Your task to perform on an android device: Is it going to rain tomorrow? Image 0: 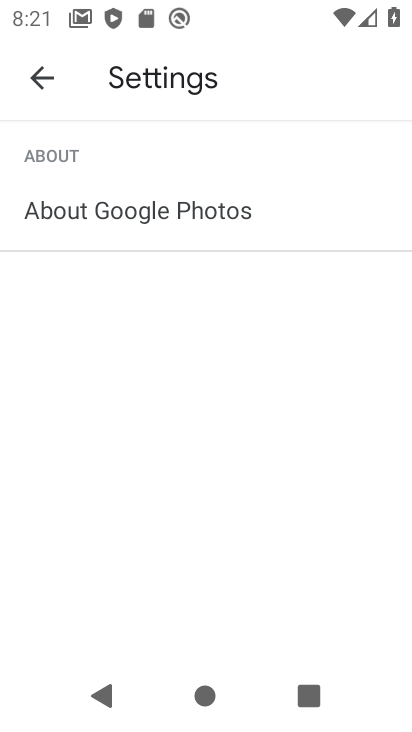
Step 0: drag from (312, 574) to (338, 418)
Your task to perform on an android device: Is it going to rain tomorrow? Image 1: 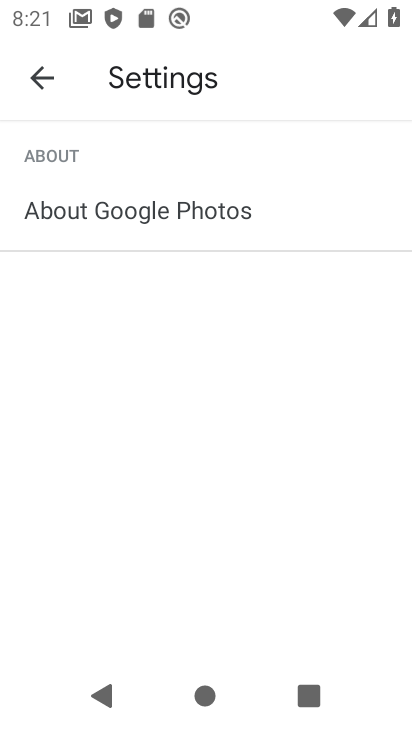
Step 1: press home button
Your task to perform on an android device: Is it going to rain tomorrow? Image 2: 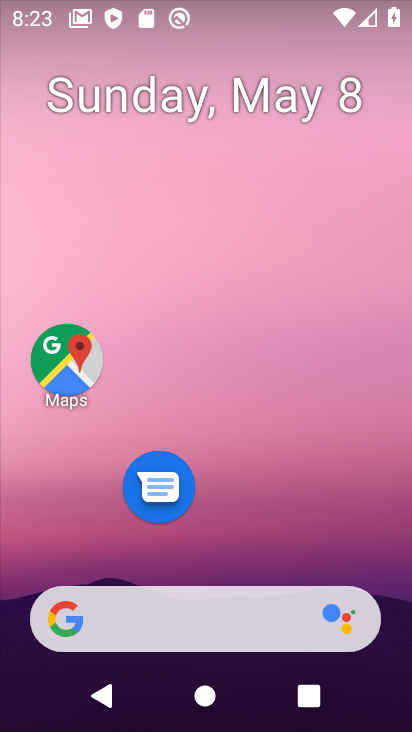
Step 2: click (241, 620)
Your task to perform on an android device: Is it going to rain tomorrow? Image 3: 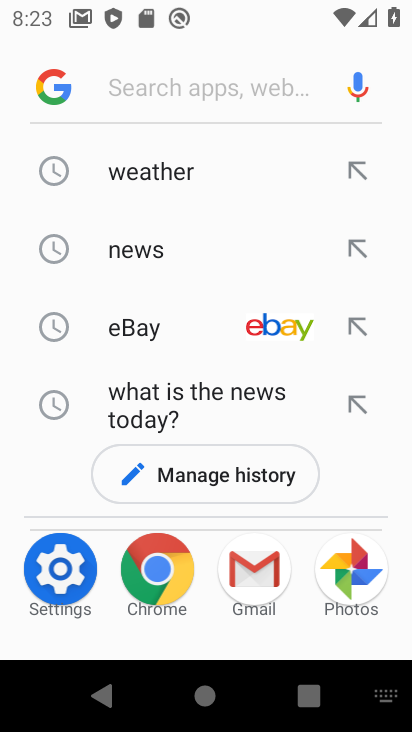
Step 3: click (221, 172)
Your task to perform on an android device: Is it going to rain tomorrow? Image 4: 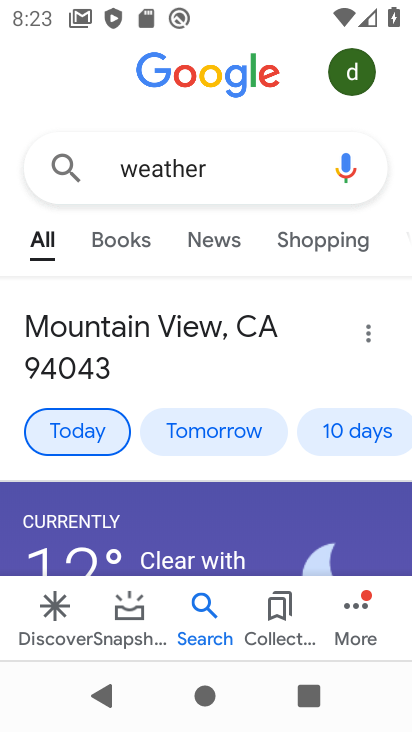
Step 4: task complete